Your task to perform on an android device: Go to wifi settings Image 0: 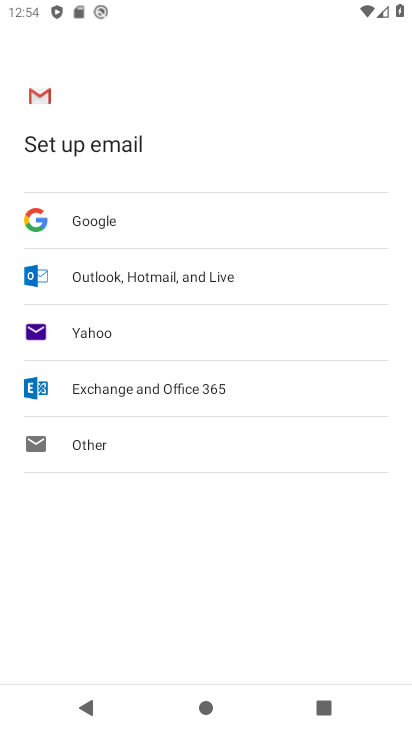
Step 0: press home button
Your task to perform on an android device: Go to wifi settings Image 1: 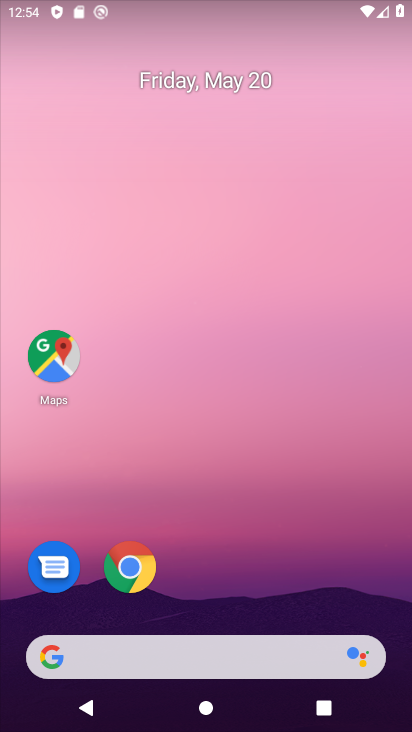
Step 1: drag from (254, 621) to (279, 193)
Your task to perform on an android device: Go to wifi settings Image 2: 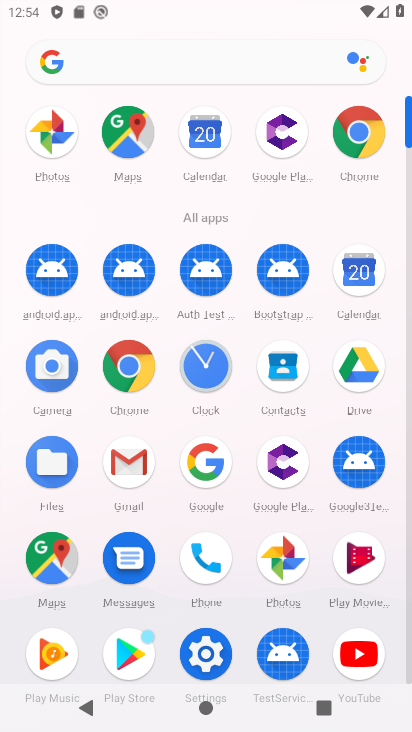
Step 2: click (212, 642)
Your task to perform on an android device: Go to wifi settings Image 3: 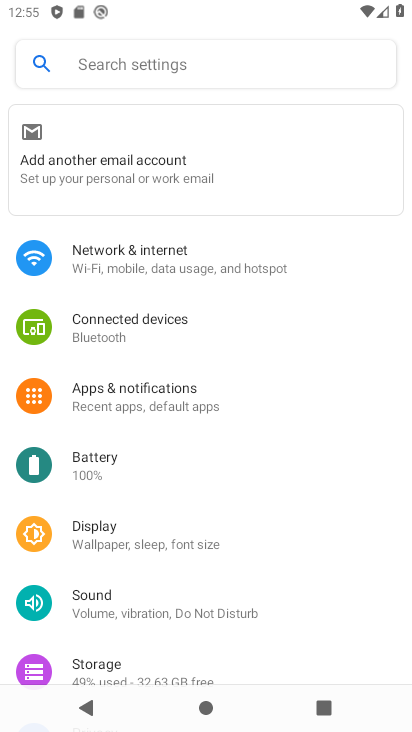
Step 3: click (161, 257)
Your task to perform on an android device: Go to wifi settings Image 4: 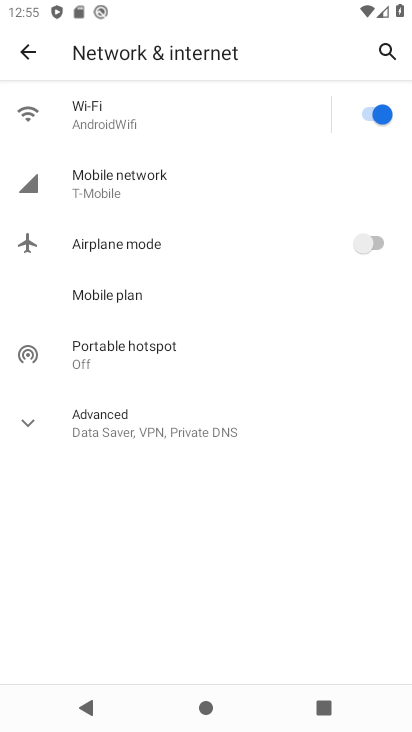
Step 4: click (148, 109)
Your task to perform on an android device: Go to wifi settings Image 5: 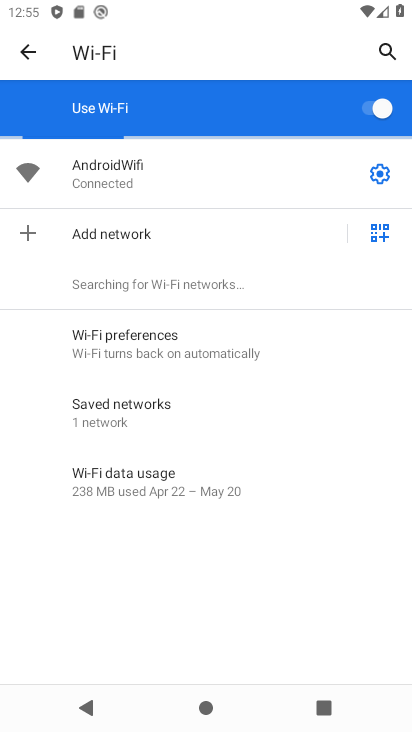
Step 5: task complete